Your task to perform on an android device: Open network settings Image 0: 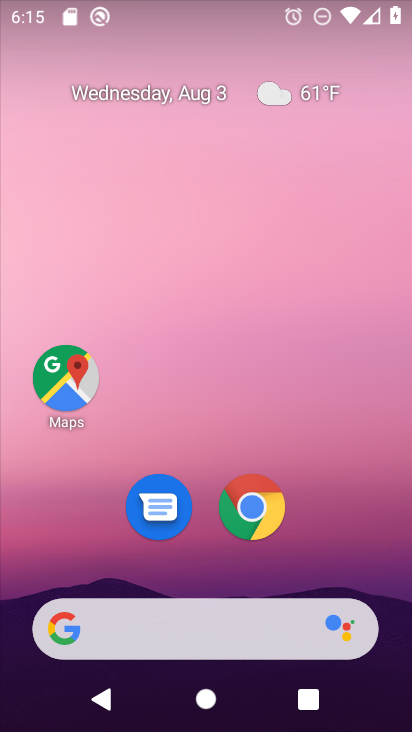
Step 0: drag from (329, 503) to (258, 61)
Your task to perform on an android device: Open network settings Image 1: 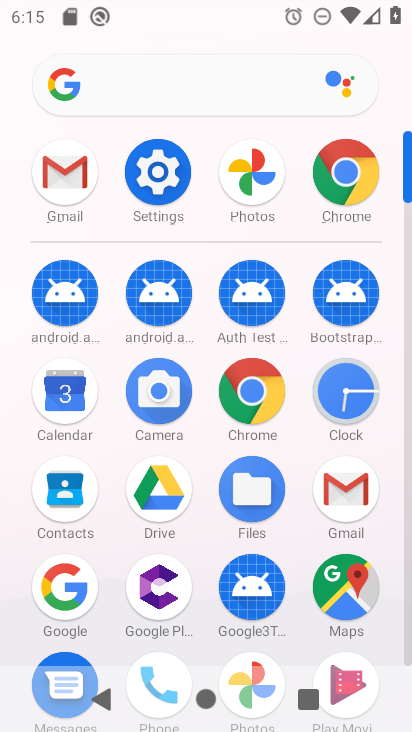
Step 1: click (139, 164)
Your task to perform on an android device: Open network settings Image 2: 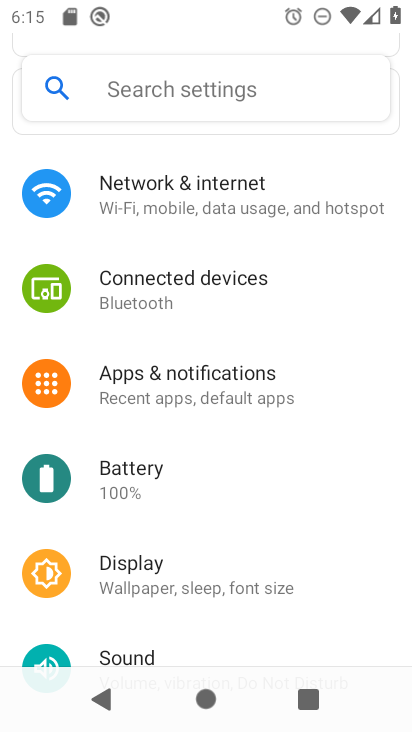
Step 2: click (182, 168)
Your task to perform on an android device: Open network settings Image 3: 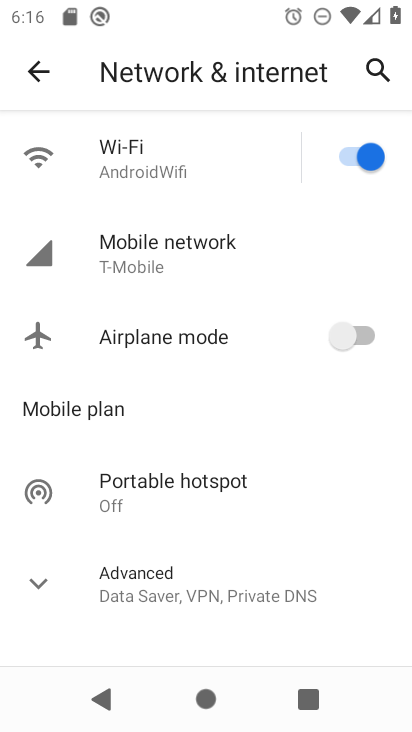
Step 3: click (195, 152)
Your task to perform on an android device: Open network settings Image 4: 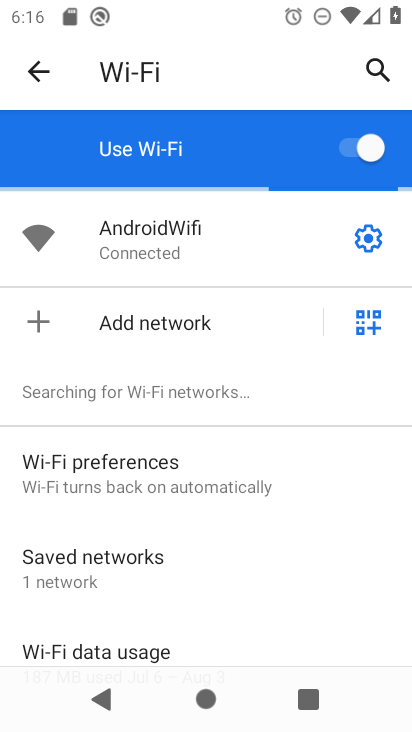
Step 4: click (52, 70)
Your task to perform on an android device: Open network settings Image 5: 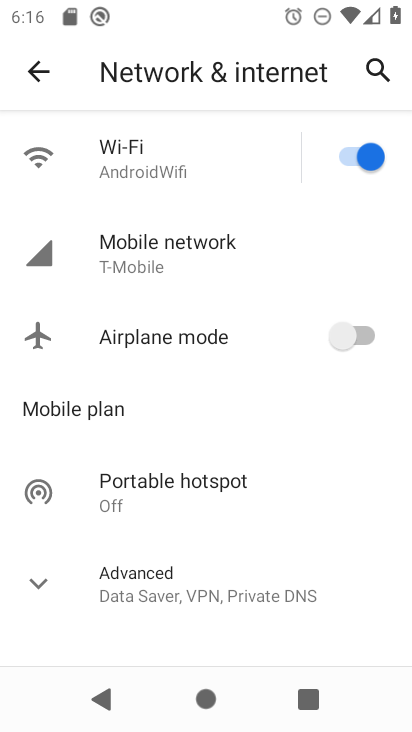
Step 5: task complete